Your task to perform on an android device: turn off picture-in-picture Image 0: 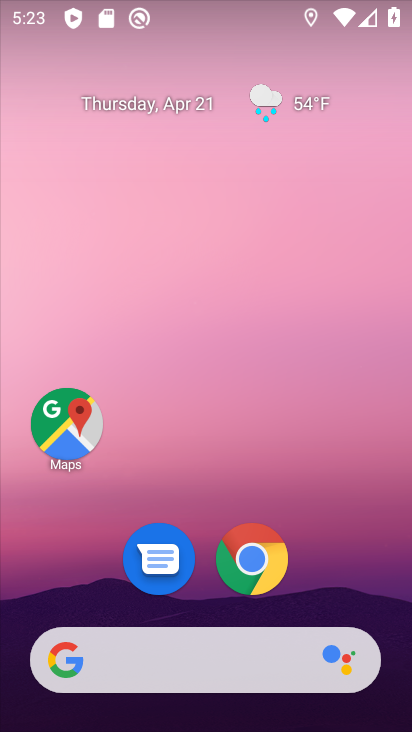
Step 0: click (283, 590)
Your task to perform on an android device: turn off picture-in-picture Image 1: 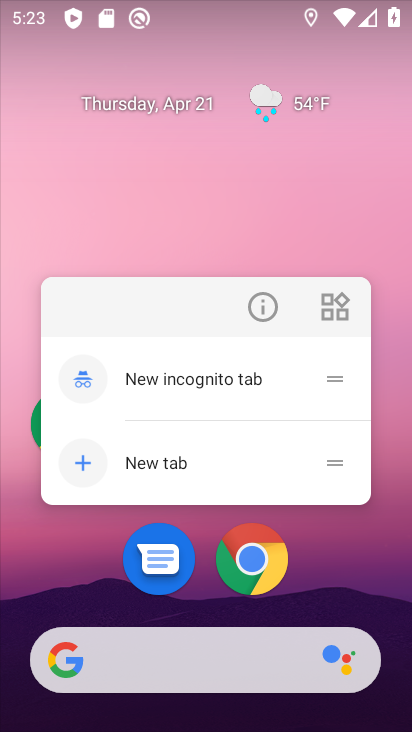
Step 1: click (263, 308)
Your task to perform on an android device: turn off picture-in-picture Image 2: 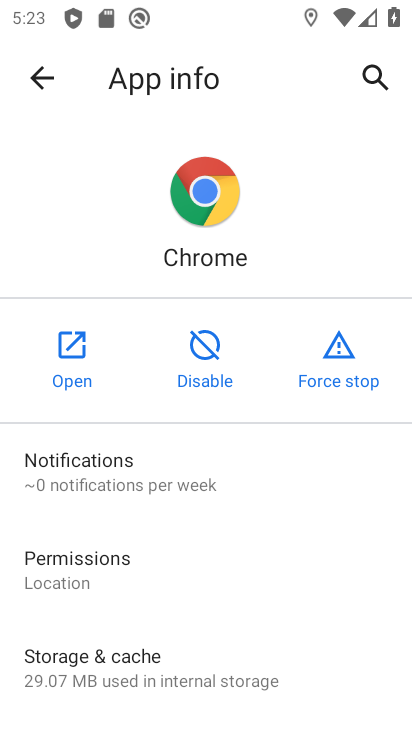
Step 2: drag from (218, 637) to (233, 326)
Your task to perform on an android device: turn off picture-in-picture Image 3: 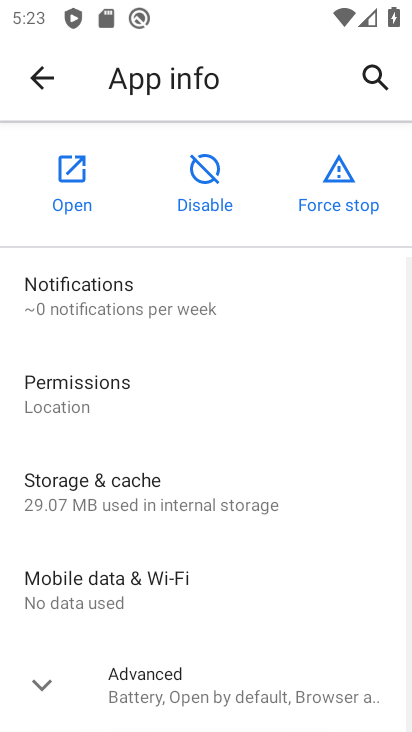
Step 3: drag from (180, 582) to (201, 284)
Your task to perform on an android device: turn off picture-in-picture Image 4: 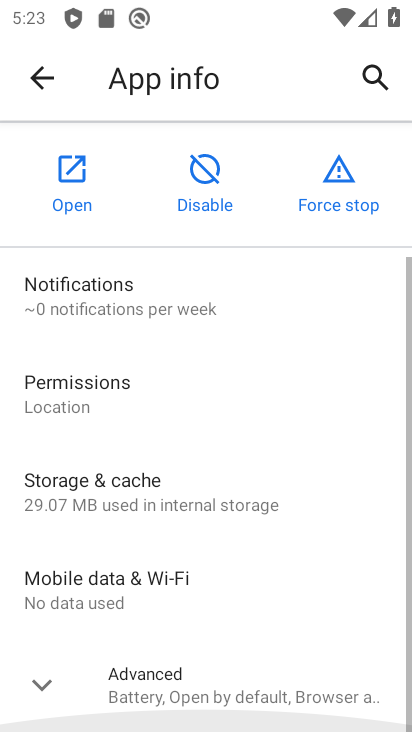
Step 4: click (145, 695)
Your task to perform on an android device: turn off picture-in-picture Image 5: 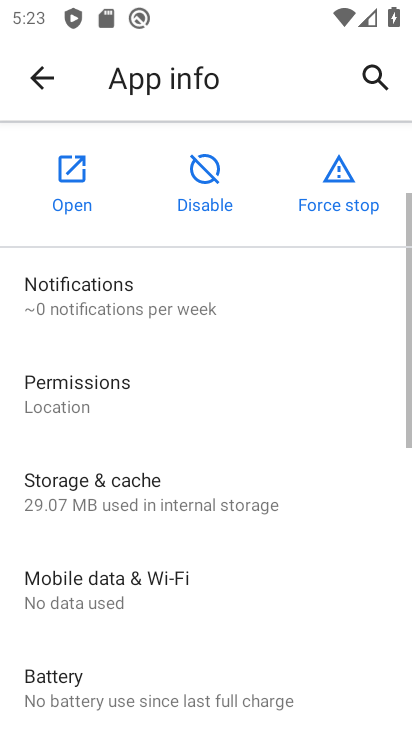
Step 5: drag from (167, 620) to (187, 371)
Your task to perform on an android device: turn off picture-in-picture Image 6: 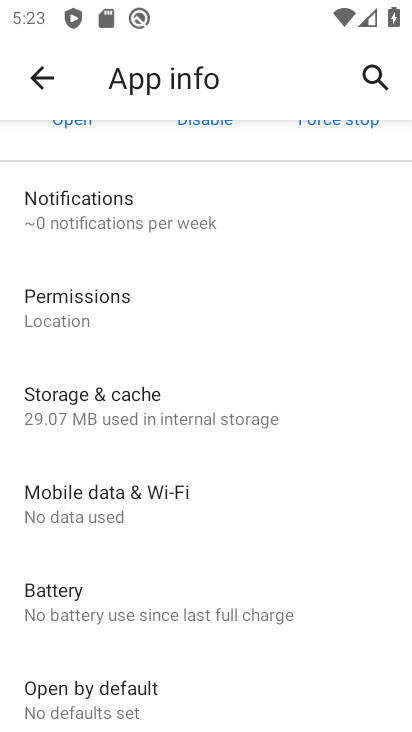
Step 6: drag from (163, 641) to (251, 234)
Your task to perform on an android device: turn off picture-in-picture Image 7: 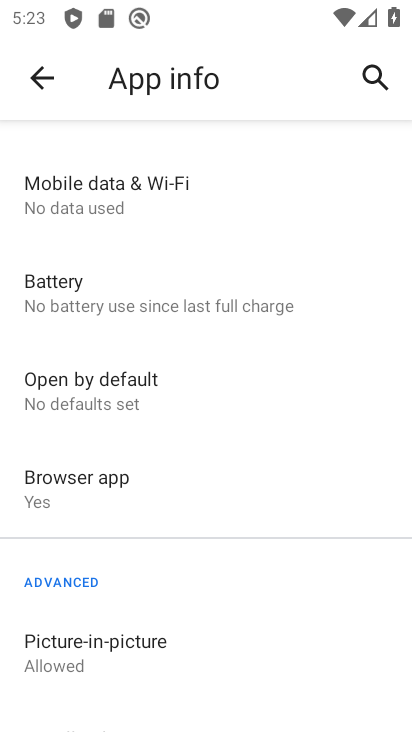
Step 7: drag from (156, 619) to (205, 275)
Your task to perform on an android device: turn off picture-in-picture Image 8: 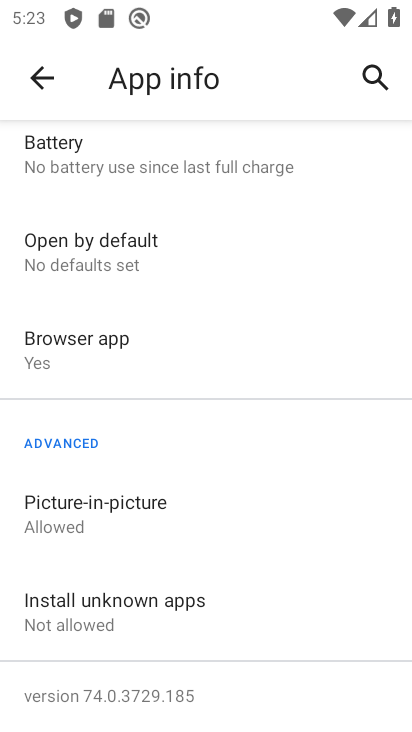
Step 8: click (87, 515)
Your task to perform on an android device: turn off picture-in-picture Image 9: 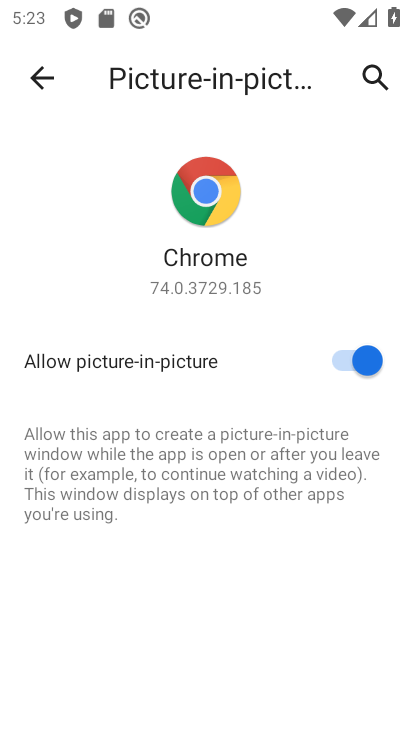
Step 9: click (351, 371)
Your task to perform on an android device: turn off picture-in-picture Image 10: 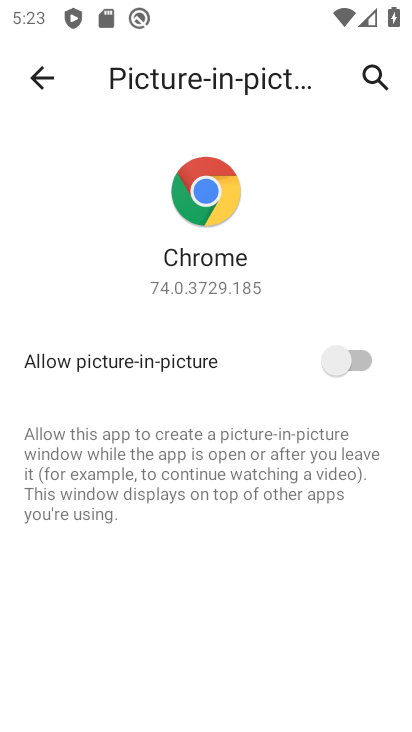
Step 10: task complete